Your task to perform on an android device: choose inbox layout in the gmail app Image 0: 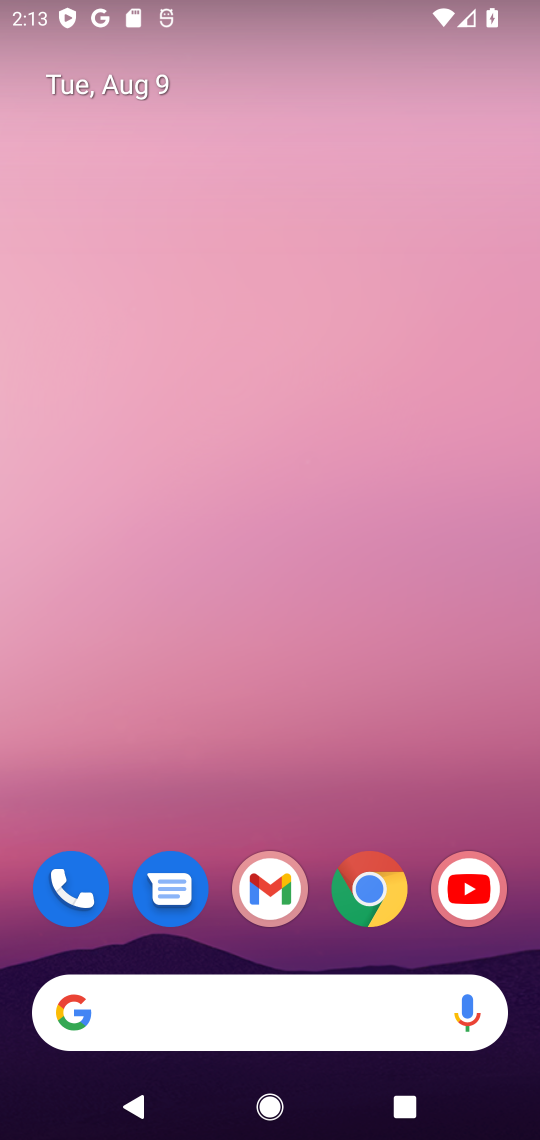
Step 0: click (282, 873)
Your task to perform on an android device: choose inbox layout in the gmail app Image 1: 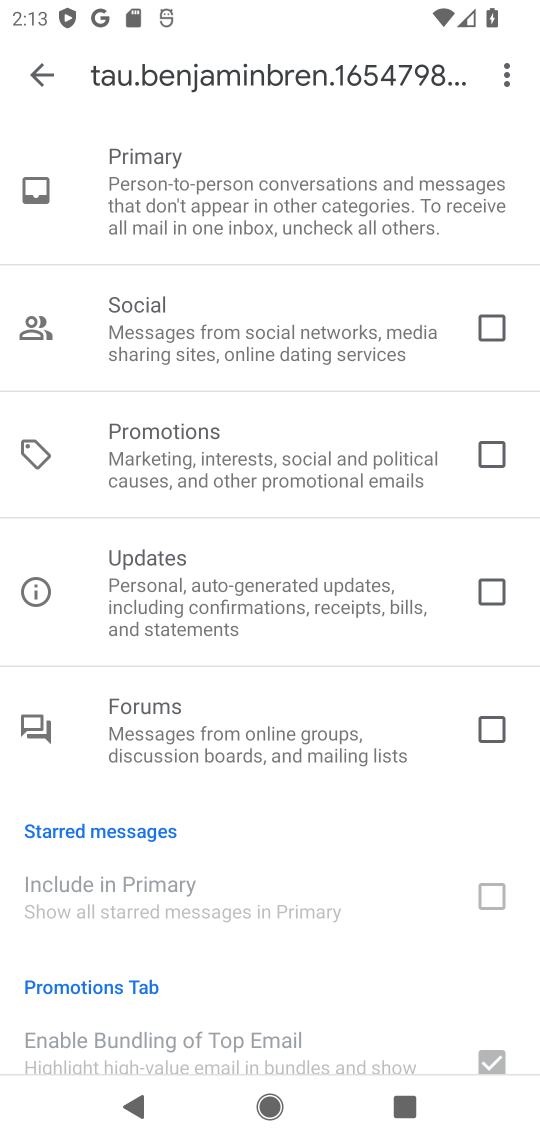
Step 1: click (50, 64)
Your task to perform on an android device: choose inbox layout in the gmail app Image 2: 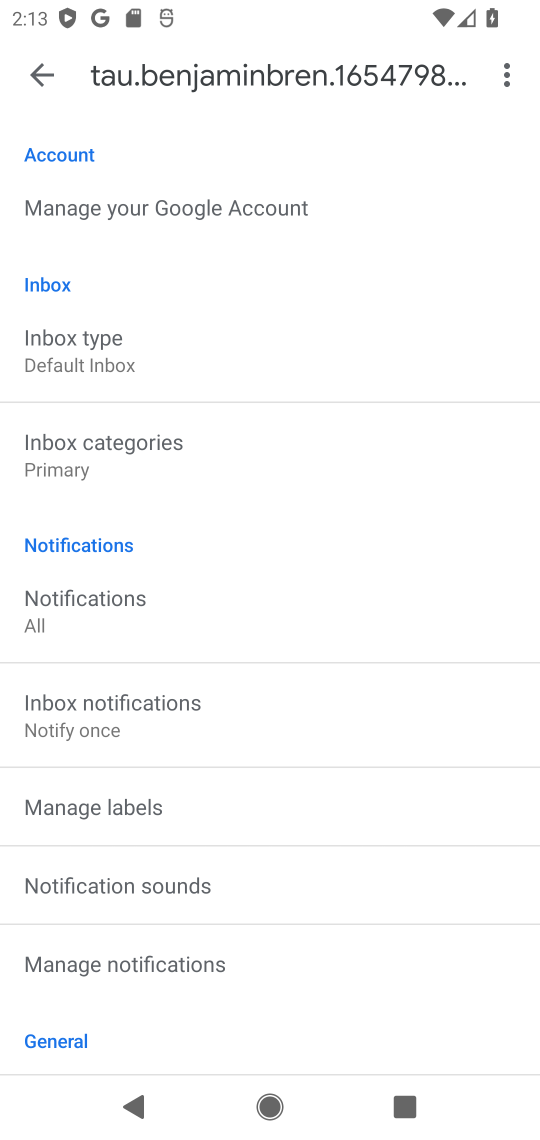
Step 2: click (95, 335)
Your task to perform on an android device: choose inbox layout in the gmail app Image 3: 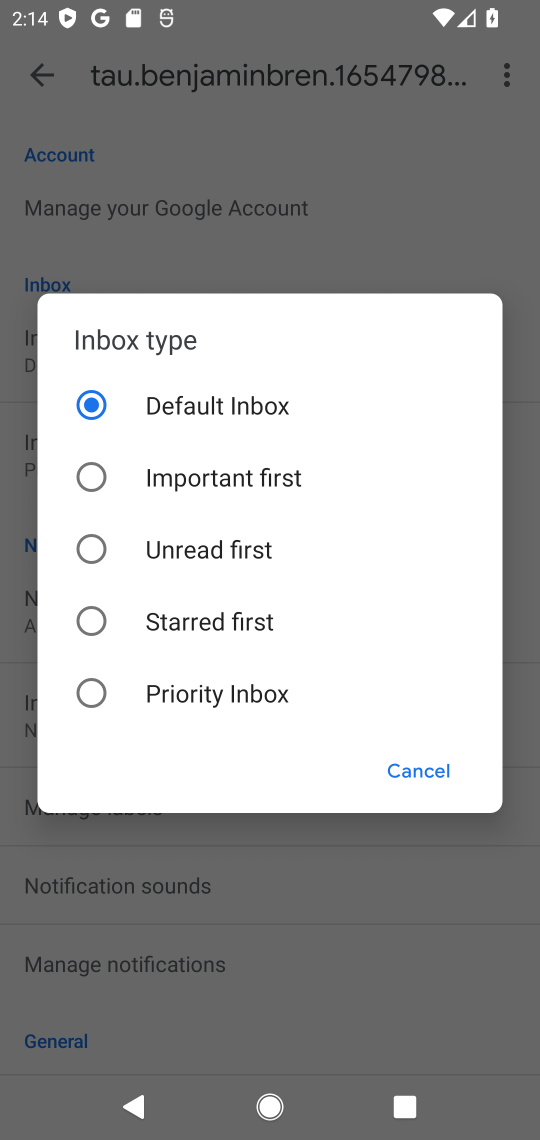
Step 3: click (97, 550)
Your task to perform on an android device: choose inbox layout in the gmail app Image 4: 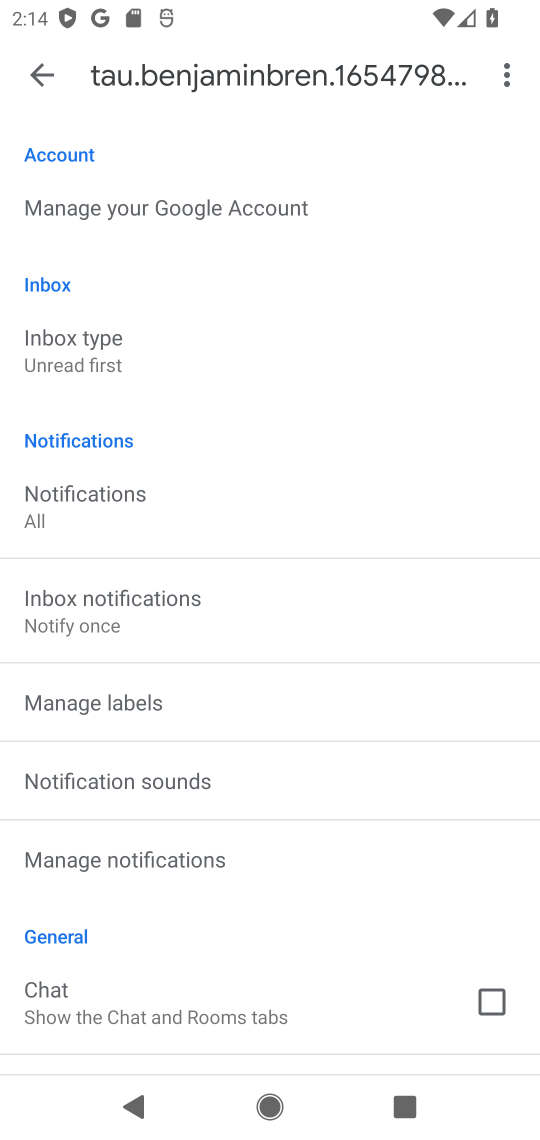
Step 4: task complete